Your task to perform on an android device: change the clock display to analog Image 0: 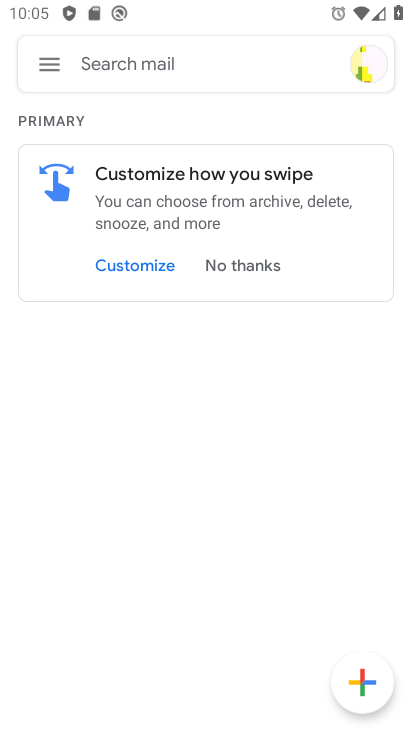
Step 0: press home button
Your task to perform on an android device: change the clock display to analog Image 1: 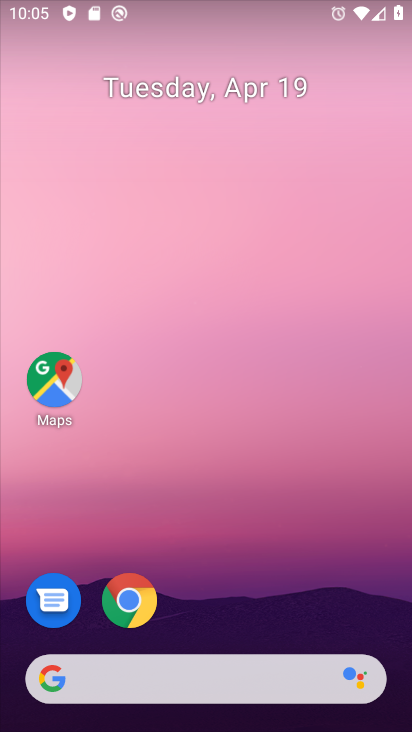
Step 1: drag from (260, 426) to (384, 21)
Your task to perform on an android device: change the clock display to analog Image 2: 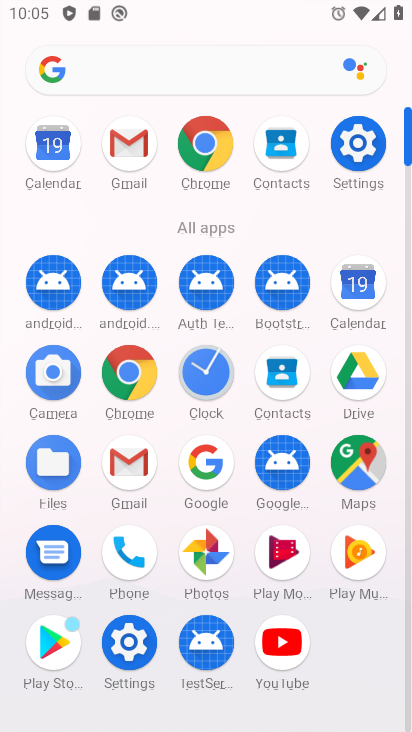
Step 2: click (207, 383)
Your task to perform on an android device: change the clock display to analog Image 3: 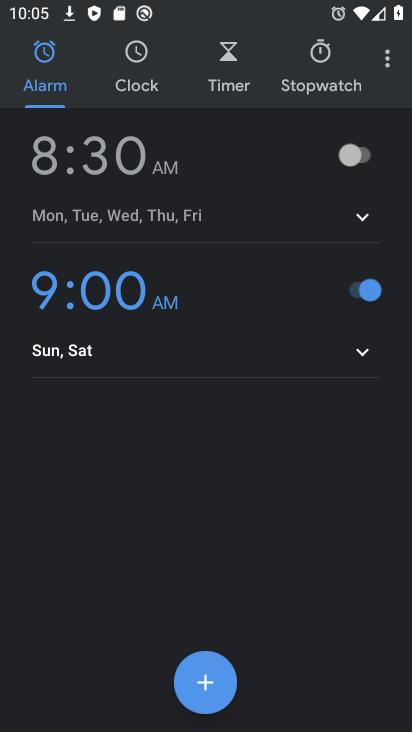
Step 3: click (382, 59)
Your task to perform on an android device: change the clock display to analog Image 4: 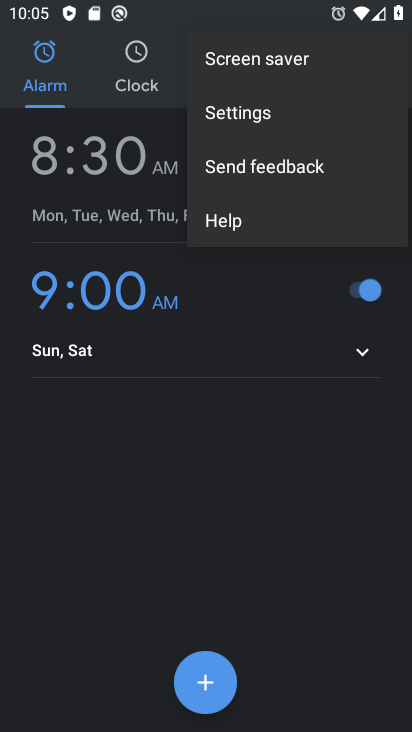
Step 4: click (227, 116)
Your task to perform on an android device: change the clock display to analog Image 5: 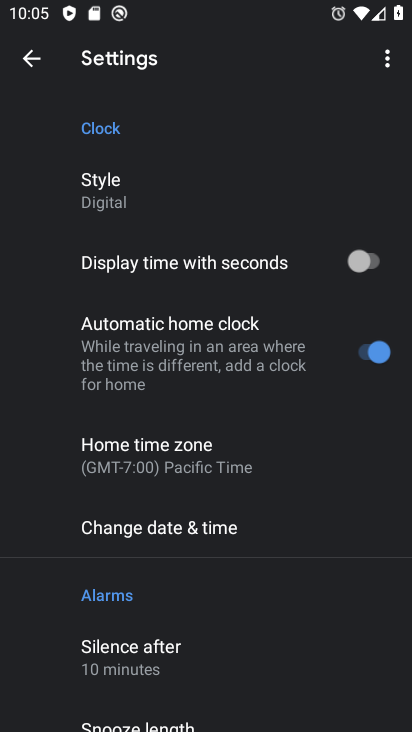
Step 5: click (141, 186)
Your task to perform on an android device: change the clock display to analog Image 6: 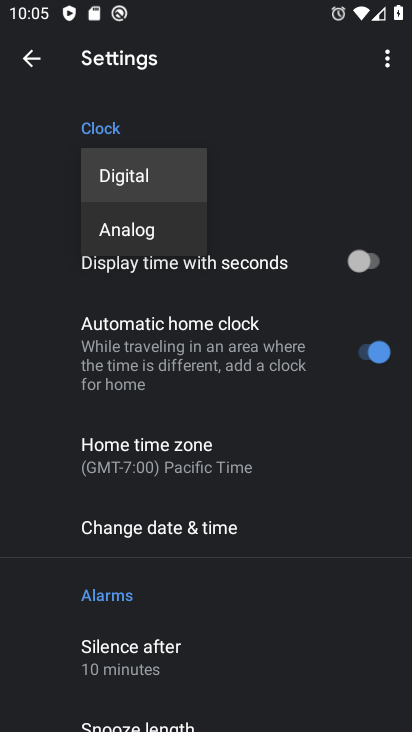
Step 6: click (172, 233)
Your task to perform on an android device: change the clock display to analog Image 7: 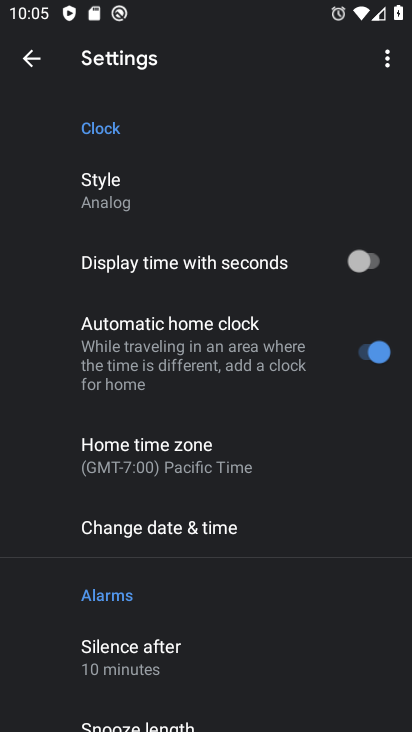
Step 7: task complete